Your task to perform on an android device: open the mobile data screen to see how much data has been used Image 0: 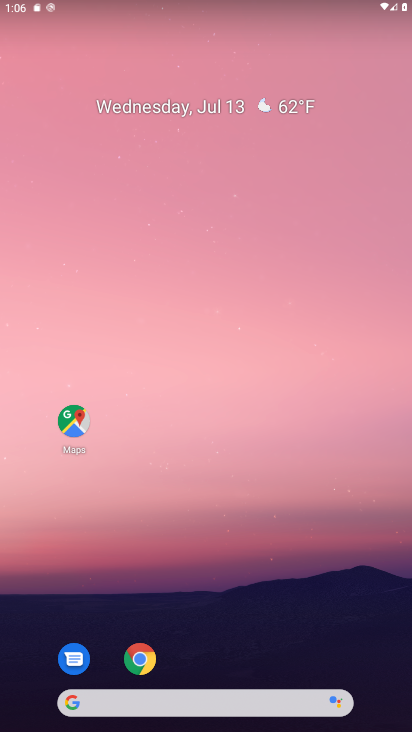
Step 0: click (225, 168)
Your task to perform on an android device: open the mobile data screen to see how much data has been used Image 1: 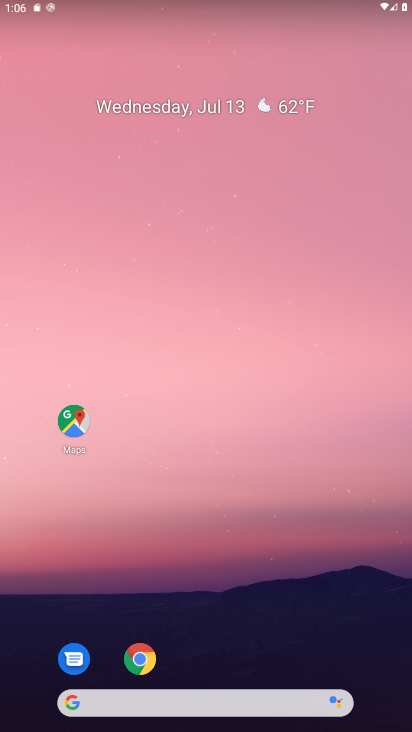
Step 1: drag from (244, 677) to (232, 392)
Your task to perform on an android device: open the mobile data screen to see how much data has been used Image 2: 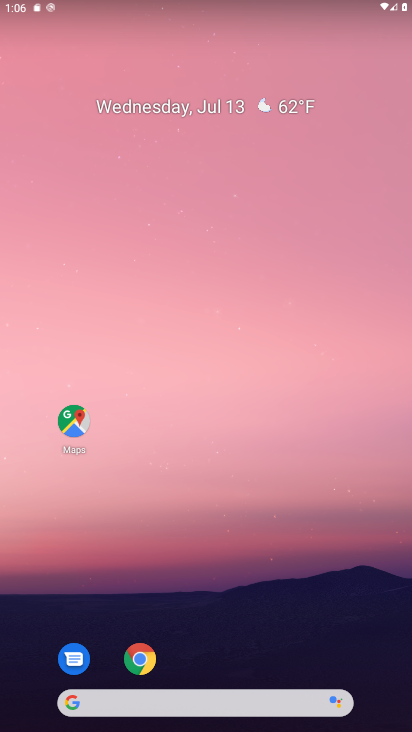
Step 2: drag from (236, 606) to (234, 255)
Your task to perform on an android device: open the mobile data screen to see how much data has been used Image 3: 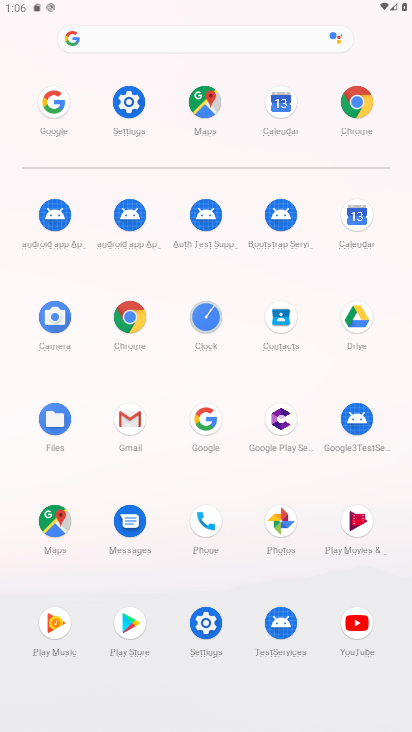
Step 3: click (214, 625)
Your task to perform on an android device: open the mobile data screen to see how much data has been used Image 4: 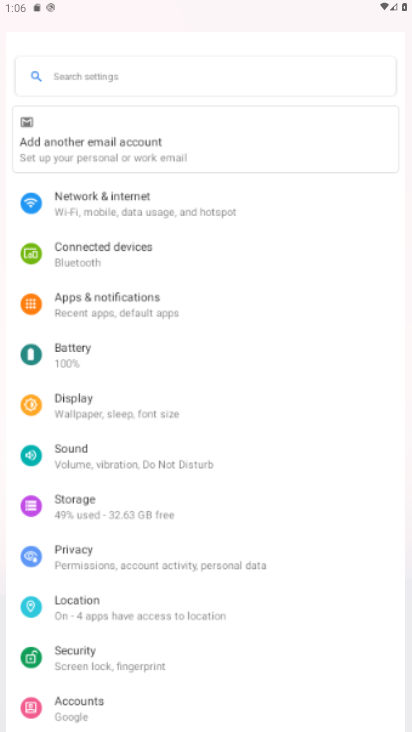
Step 4: click (214, 625)
Your task to perform on an android device: open the mobile data screen to see how much data has been used Image 5: 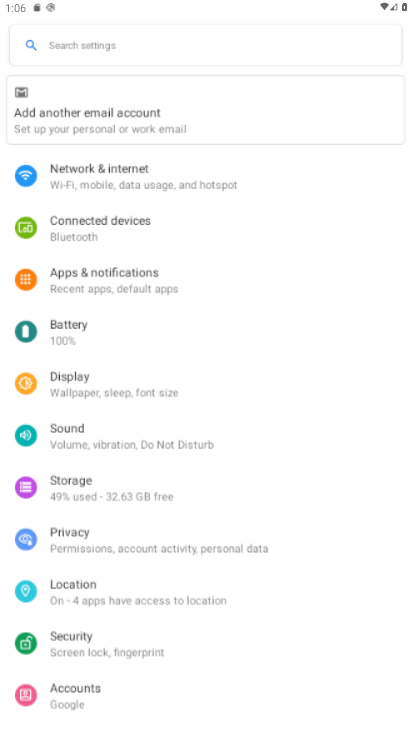
Step 5: click (214, 625)
Your task to perform on an android device: open the mobile data screen to see how much data has been used Image 6: 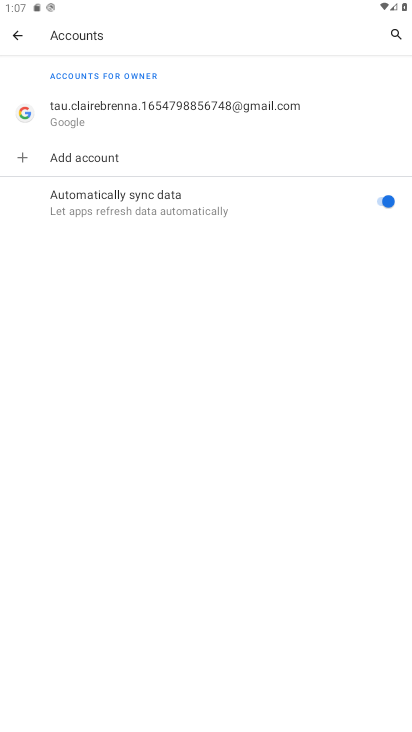
Step 6: click (16, 28)
Your task to perform on an android device: open the mobile data screen to see how much data has been used Image 7: 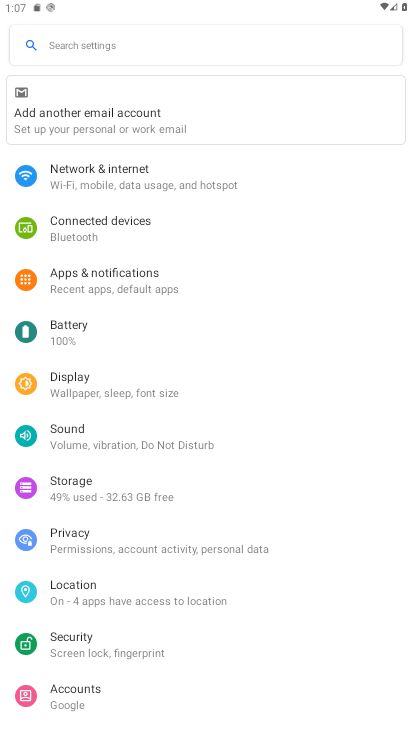
Step 7: click (88, 174)
Your task to perform on an android device: open the mobile data screen to see how much data has been used Image 8: 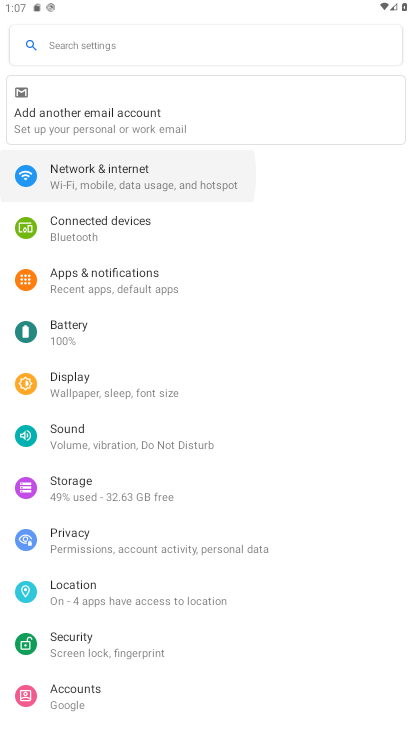
Step 8: click (89, 174)
Your task to perform on an android device: open the mobile data screen to see how much data has been used Image 9: 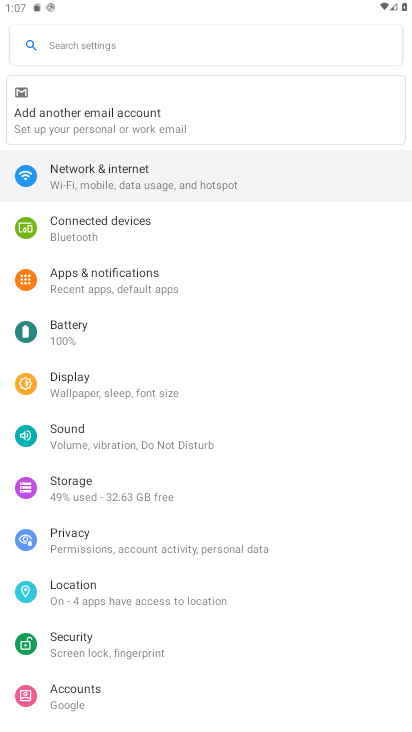
Step 9: click (90, 174)
Your task to perform on an android device: open the mobile data screen to see how much data has been used Image 10: 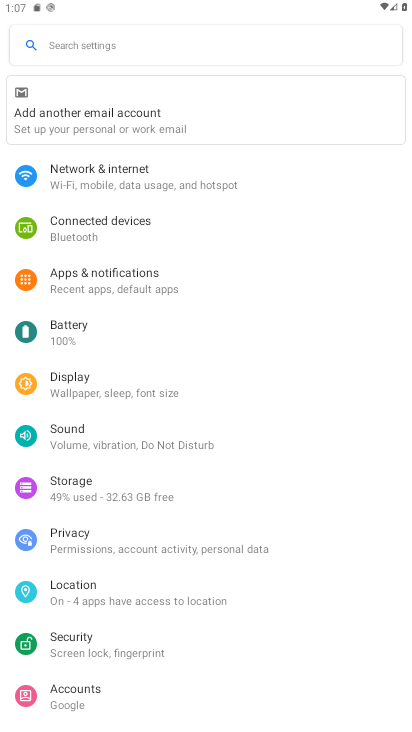
Step 10: click (91, 174)
Your task to perform on an android device: open the mobile data screen to see how much data has been used Image 11: 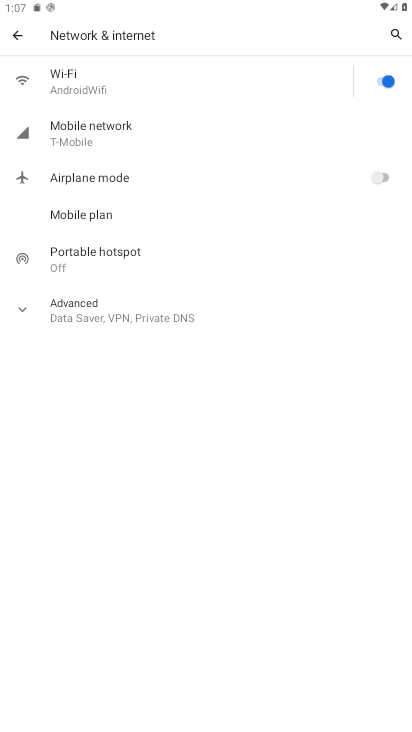
Step 11: task complete